Your task to perform on an android device: Go to Wikipedia Image 0: 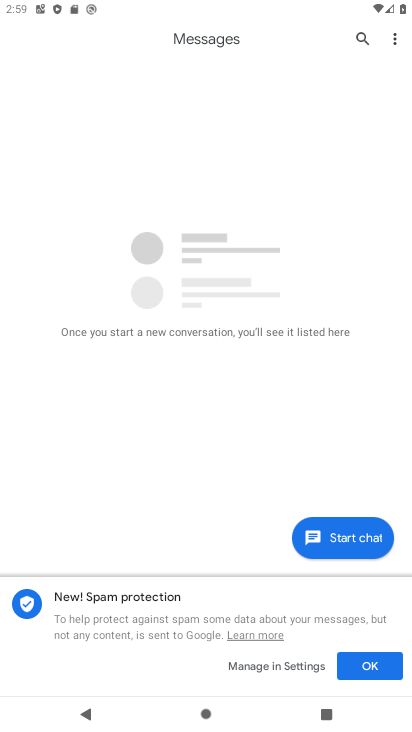
Step 0: press home button
Your task to perform on an android device: Go to Wikipedia Image 1: 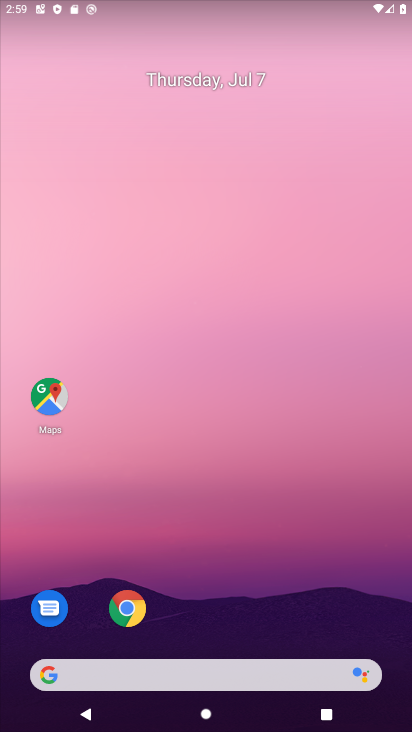
Step 1: drag from (225, 638) to (225, 48)
Your task to perform on an android device: Go to Wikipedia Image 2: 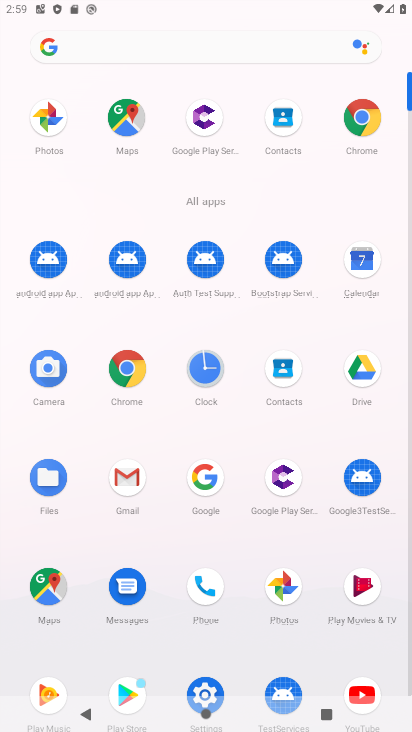
Step 2: click (362, 111)
Your task to perform on an android device: Go to Wikipedia Image 3: 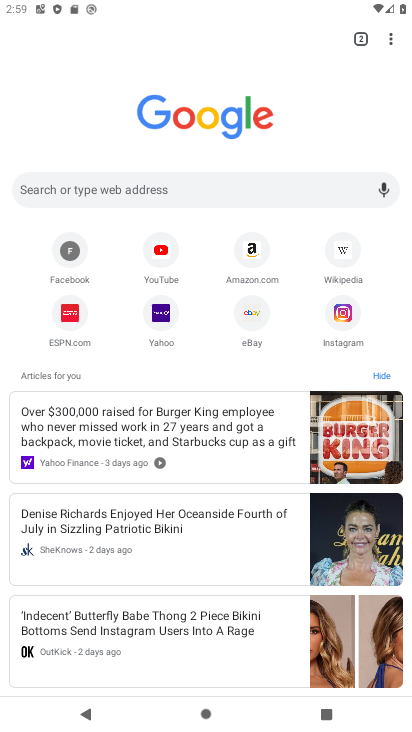
Step 3: click (341, 249)
Your task to perform on an android device: Go to Wikipedia Image 4: 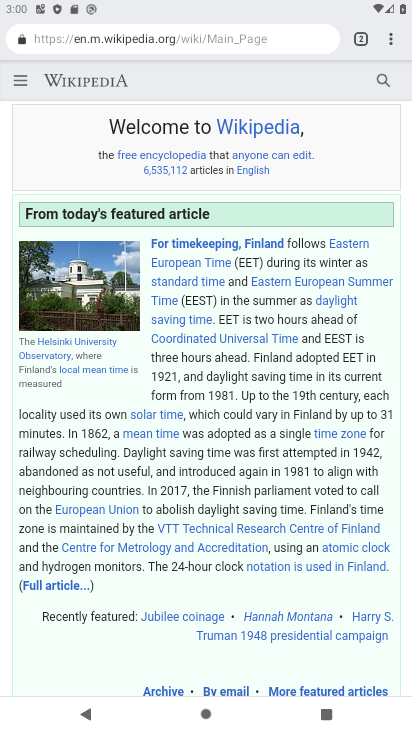
Step 4: task complete